Your task to perform on an android device: Open CNN.com Image 0: 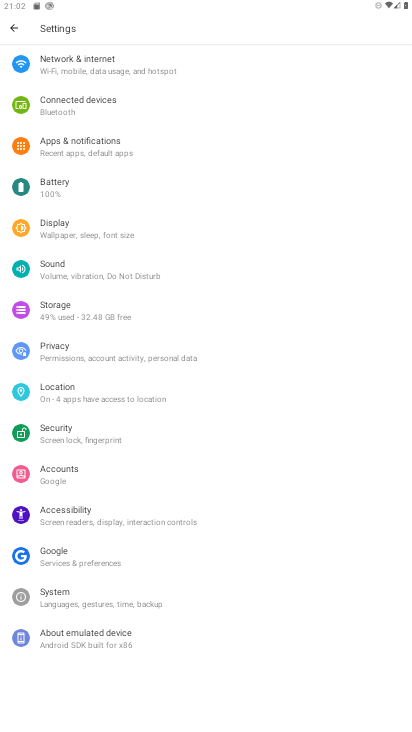
Step 0: press home button
Your task to perform on an android device: Open CNN.com Image 1: 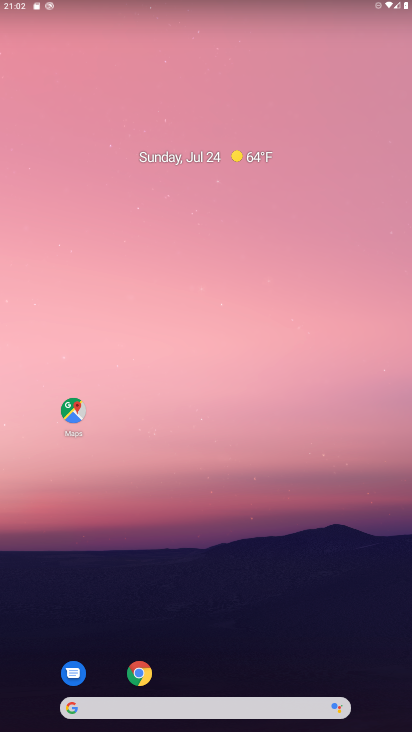
Step 1: click (139, 681)
Your task to perform on an android device: Open CNN.com Image 2: 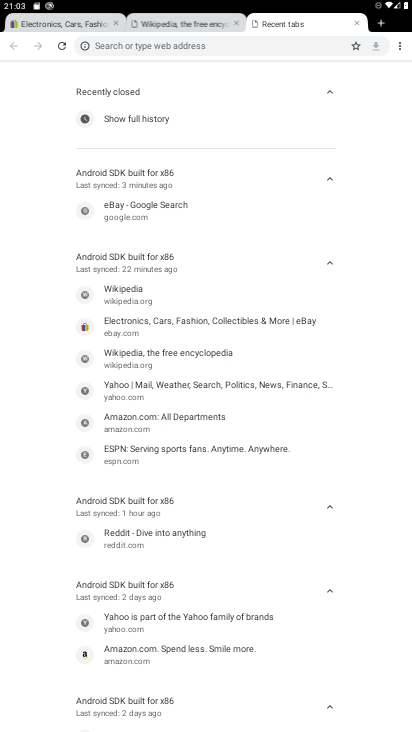
Step 2: click (117, 24)
Your task to perform on an android device: Open CNN.com Image 3: 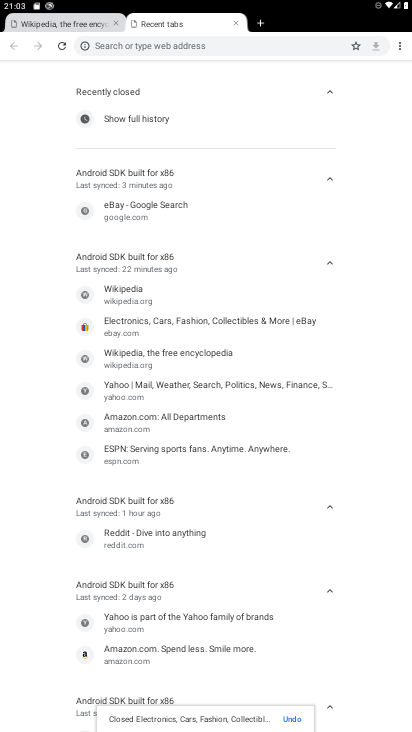
Step 3: click (117, 24)
Your task to perform on an android device: Open CNN.com Image 4: 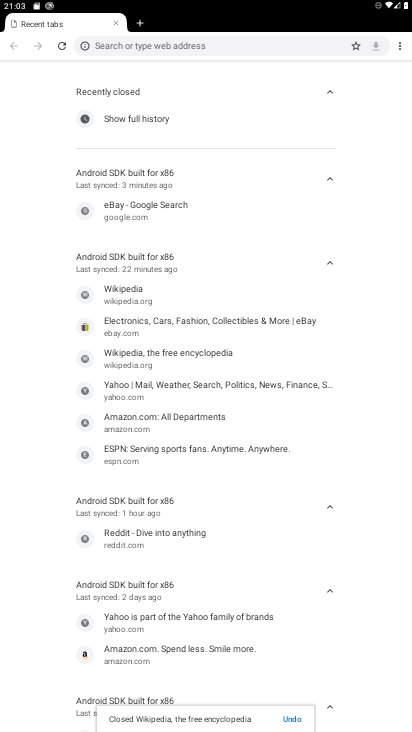
Step 4: click (162, 50)
Your task to perform on an android device: Open CNN.com Image 5: 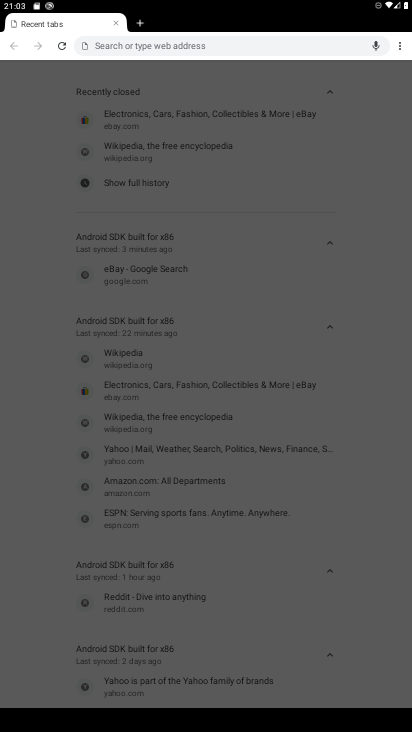
Step 5: type "cnn.com"
Your task to perform on an android device: Open CNN.com Image 6: 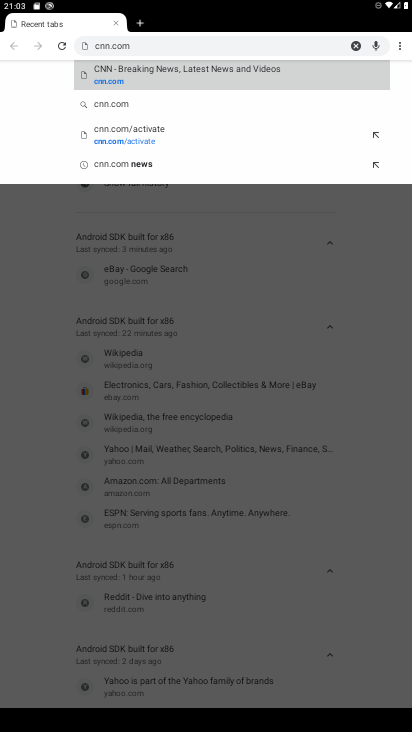
Step 6: click (163, 75)
Your task to perform on an android device: Open CNN.com Image 7: 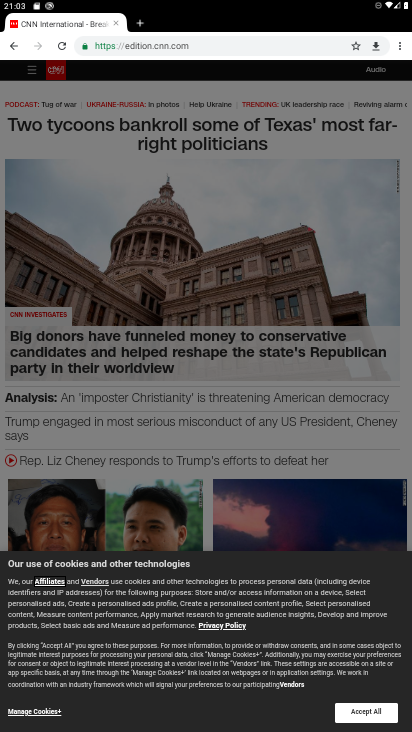
Step 7: task complete